Your task to perform on an android device: open sync settings in chrome Image 0: 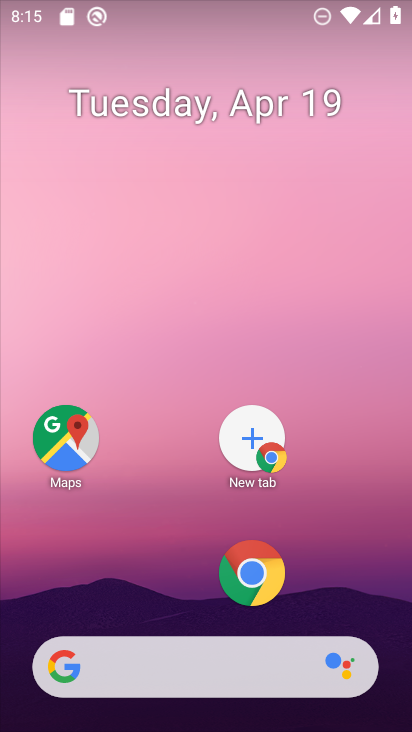
Step 0: click (259, 552)
Your task to perform on an android device: open sync settings in chrome Image 1: 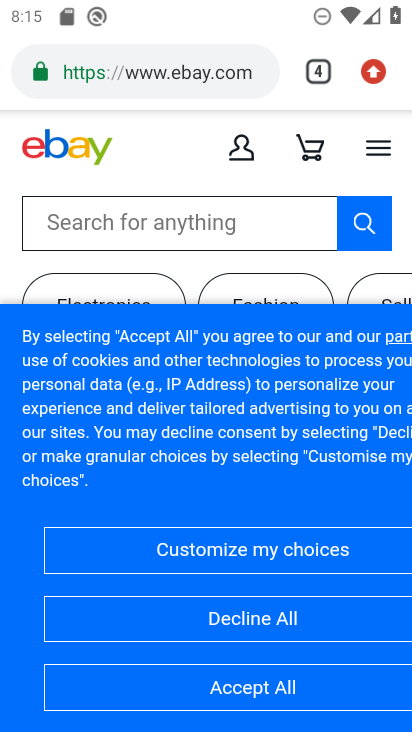
Step 1: click (382, 71)
Your task to perform on an android device: open sync settings in chrome Image 2: 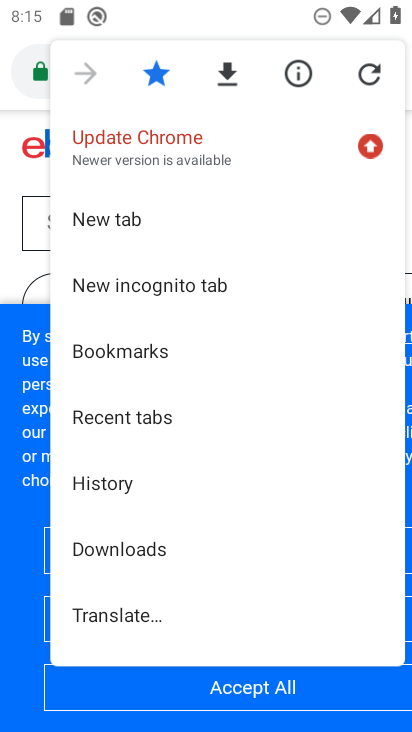
Step 2: drag from (372, 623) to (354, 210)
Your task to perform on an android device: open sync settings in chrome Image 3: 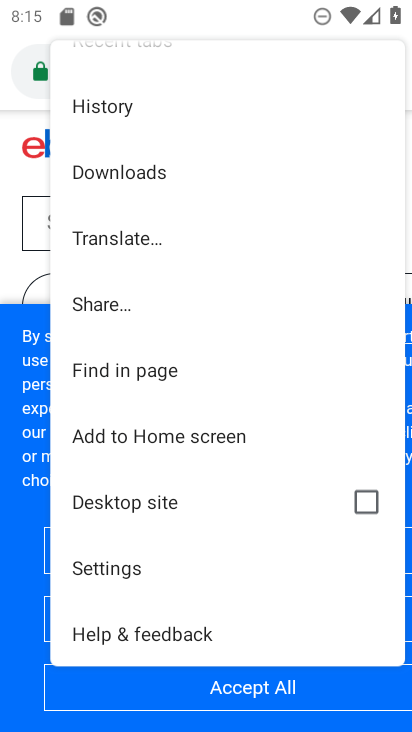
Step 3: click (221, 556)
Your task to perform on an android device: open sync settings in chrome Image 4: 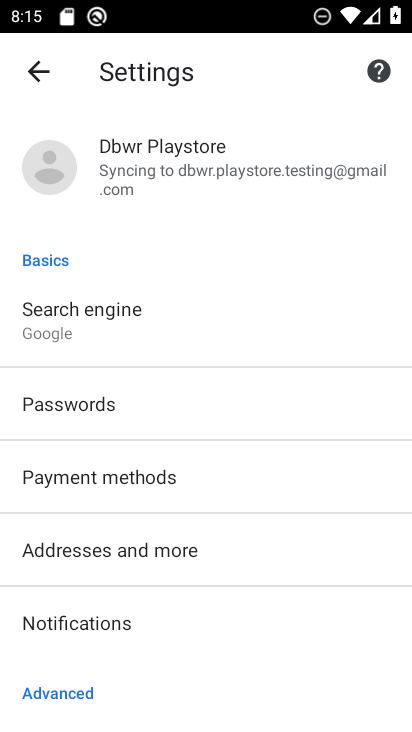
Step 4: click (138, 171)
Your task to perform on an android device: open sync settings in chrome Image 5: 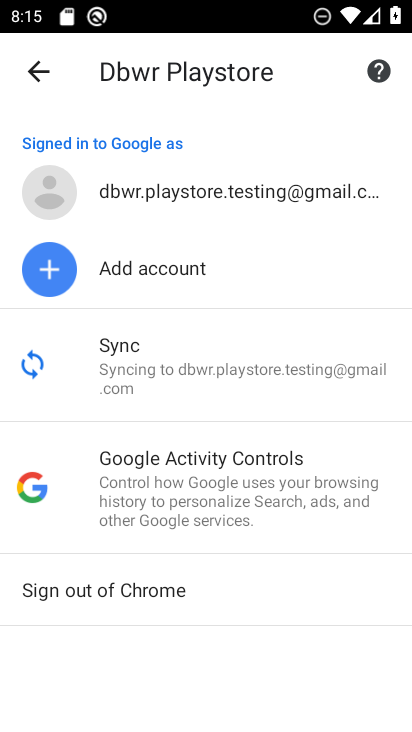
Step 5: click (191, 355)
Your task to perform on an android device: open sync settings in chrome Image 6: 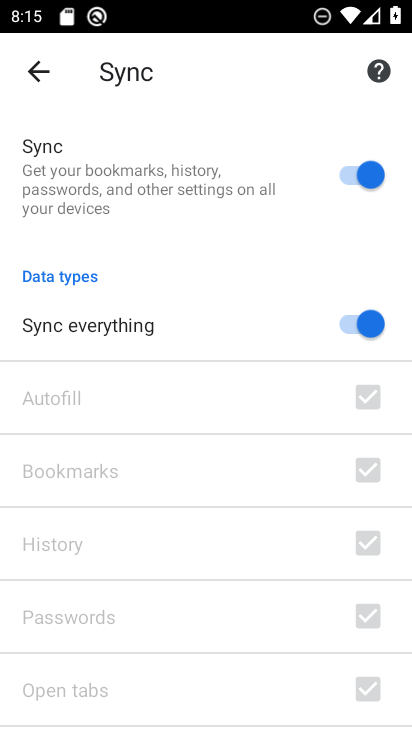
Step 6: task complete